Your task to perform on an android device: empty trash in the gmail app Image 0: 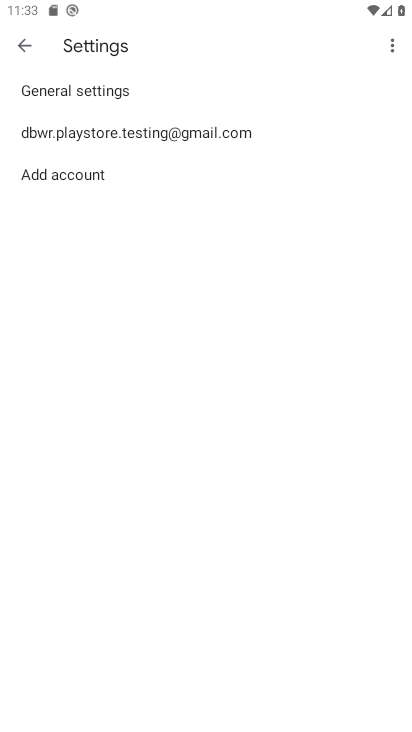
Step 0: press back button
Your task to perform on an android device: empty trash in the gmail app Image 1: 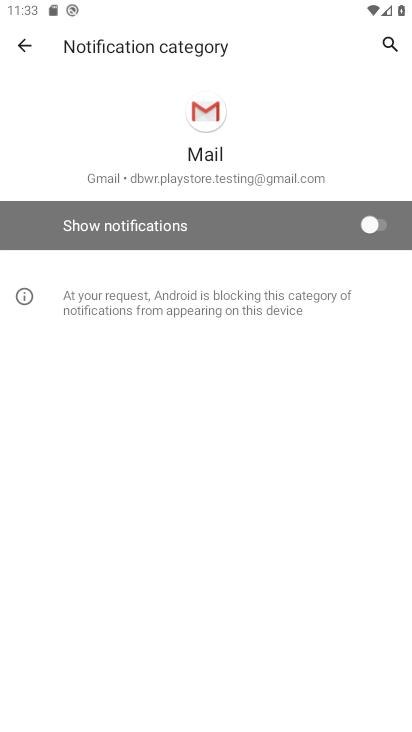
Step 1: press back button
Your task to perform on an android device: empty trash in the gmail app Image 2: 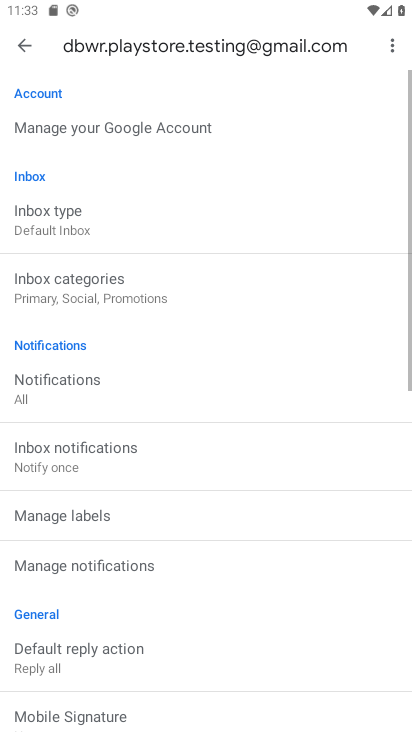
Step 2: press back button
Your task to perform on an android device: empty trash in the gmail app Image 3: 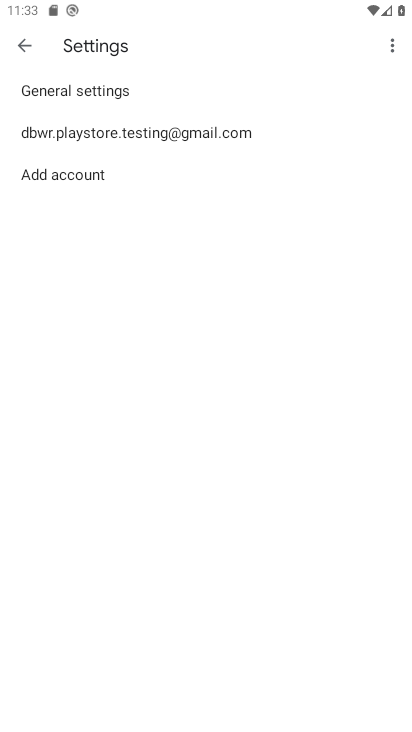
Step 3: press back button
Your task to perform on an android device: empty trash in the gmail app Image 4: 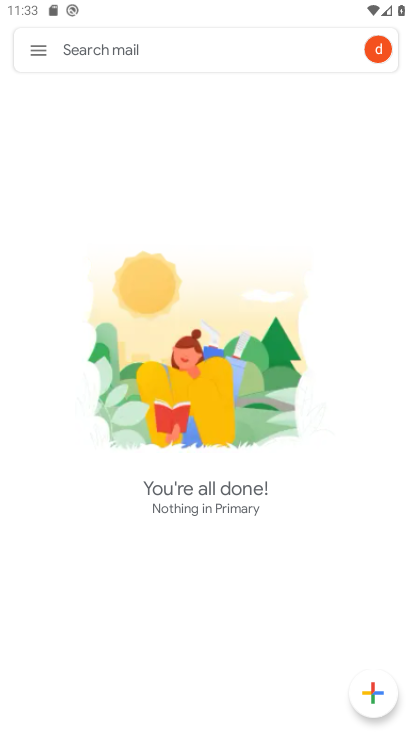
Step 4: click (39, 56)
Your task to perform on an android device: empty trash in the gmail app Image 5: 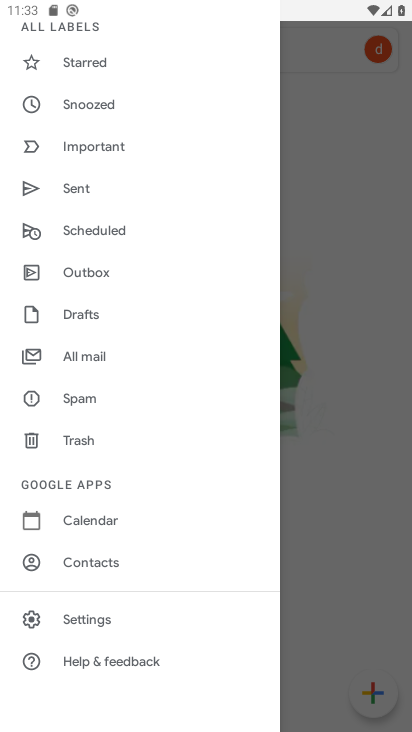
Step 5: click (77, 442)
Your task to perform on an android device: empty trash in the gmail app Image 6: 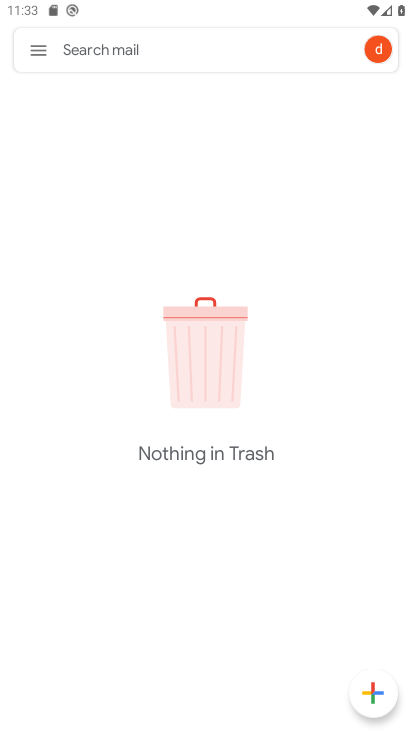
Step 6: task complete